Your task to perform on an android device: Show me recent news Image 0: 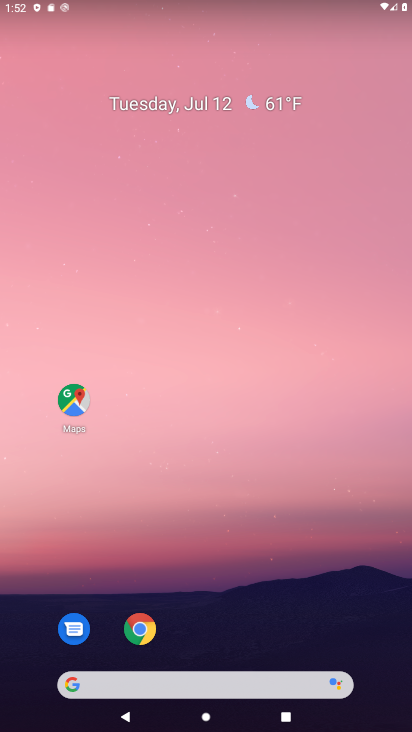
Step 0: drag from (8, 487) to (407, 448)
Your task to perform on an android device: Show me recent news Image 1: 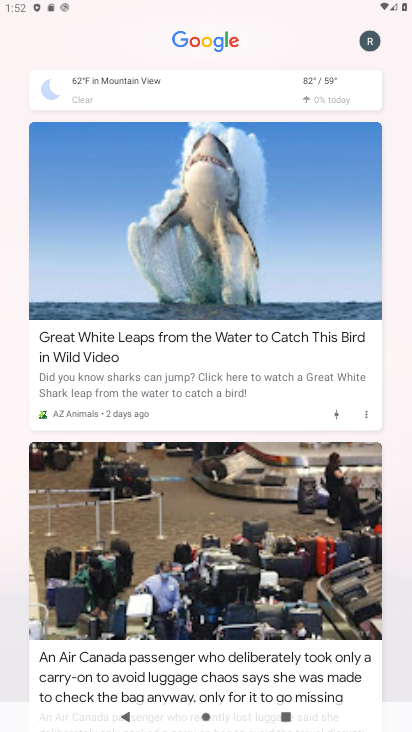
Step 1: task complete